Your task to perform on an android device: Open notification settings Image 0: 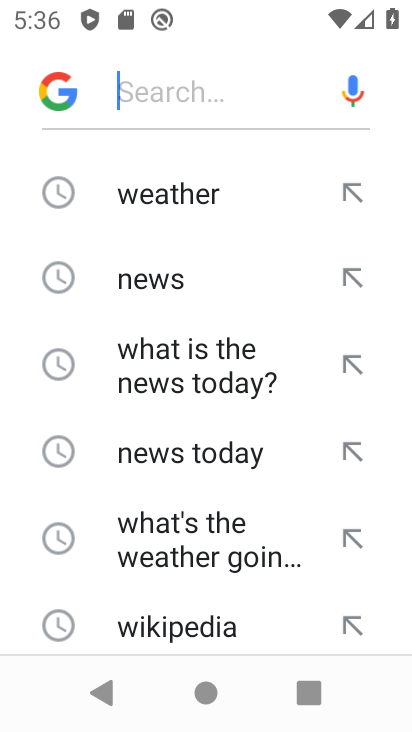
Step 0: press home button
Your task to perform on an android device: Open notification settings Image 1: 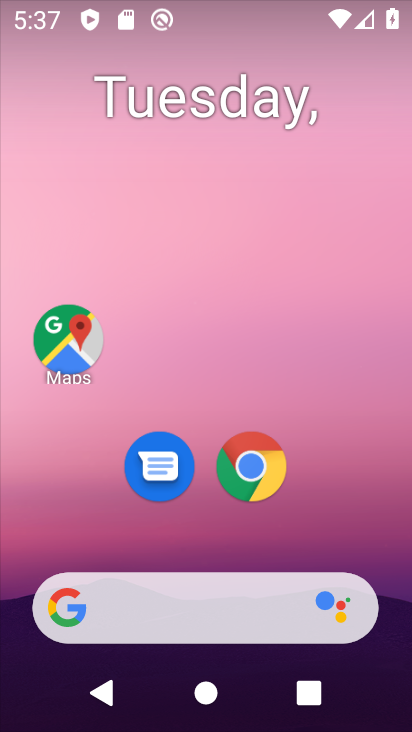
Step 1: drag from (228, 528) to (293, 164)
Your task to perform on an android device: Open notification settings Image 2: 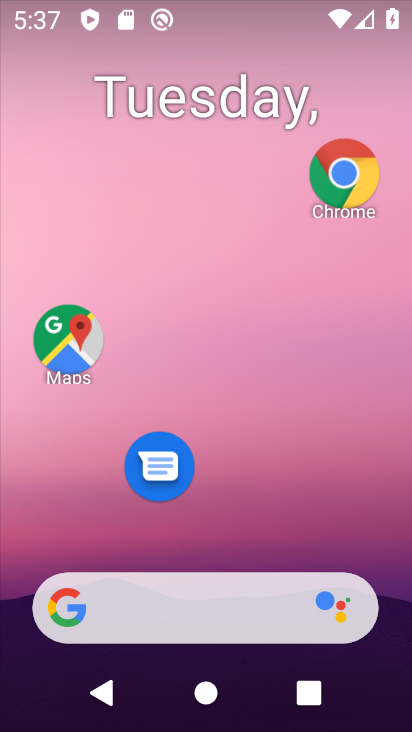
Step 2: drag from (339, 518) to (324, 105)
Your task to perform on an android device: Open notification settings Image 3: 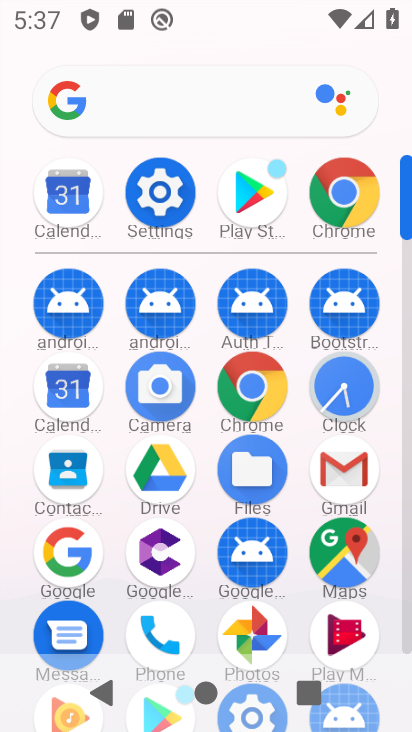
Step 3: click (180, 204)
Your task to perform on an android device: Open notification settings Image 4: 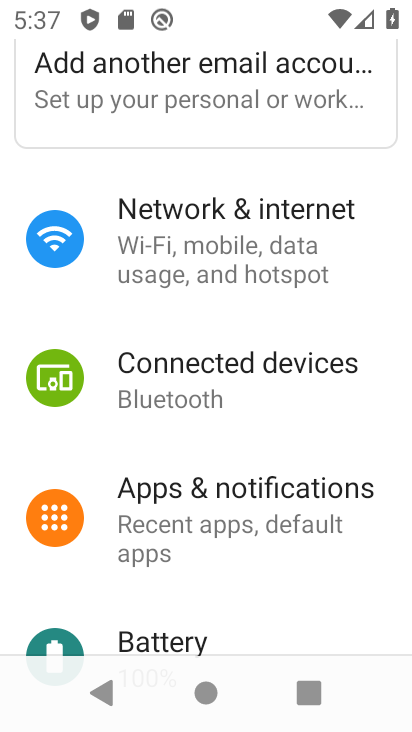
Step 4: click (186, 522)
Your task to perform on an android device: Open notification settings Image 5: 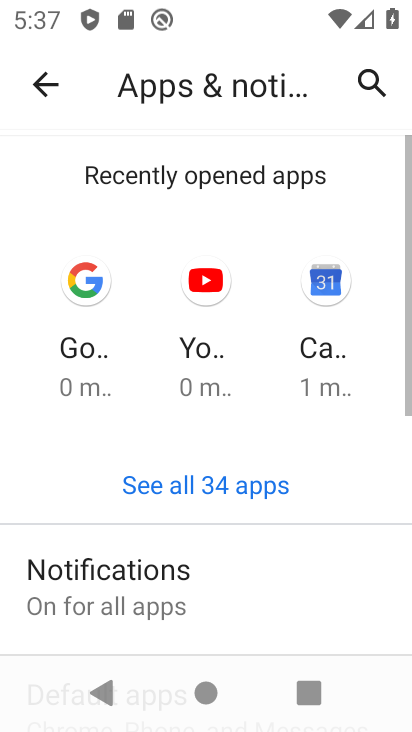
Step 5: task complete